Your task to perform on an android device: change notification settings in the gmail app Image 0: 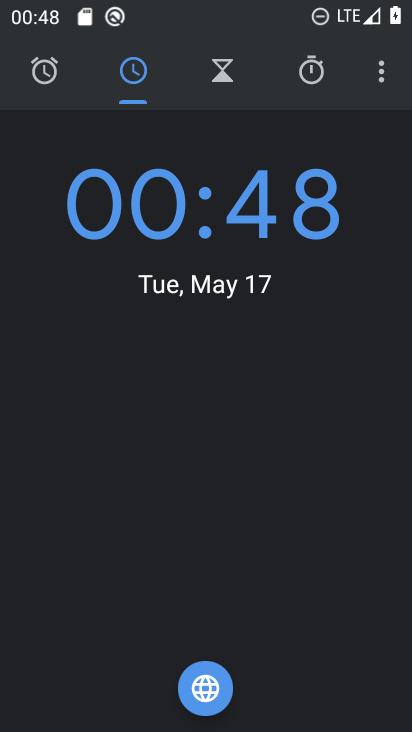
Step 0: press home button
Your task to perform on an android device: change notification settings in the gmail app Image 1: 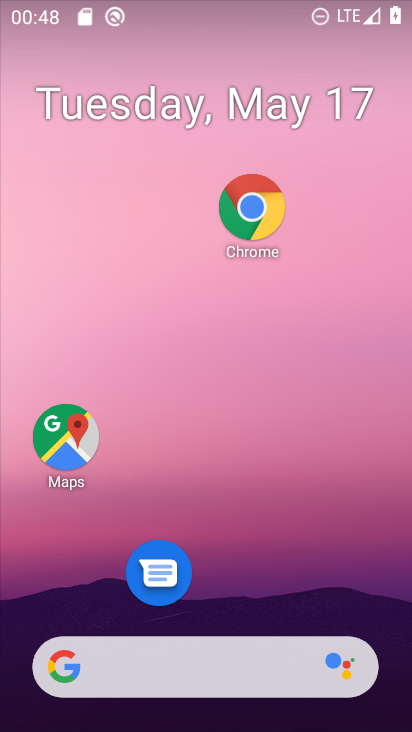
Step 1: drag from (292, 581) to (262, 24)
Your task to perform on an android device: change notification settings in the gmail app Image 2: 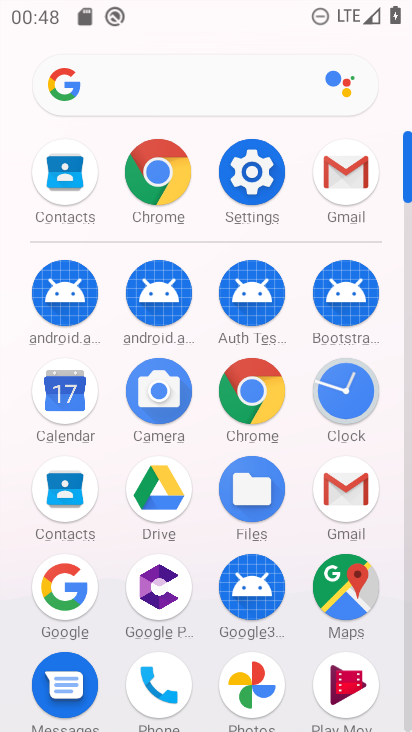
Step 2: click (356, 501)
Your task to perform on an android device: change notification settings in the gmail app Image 3: 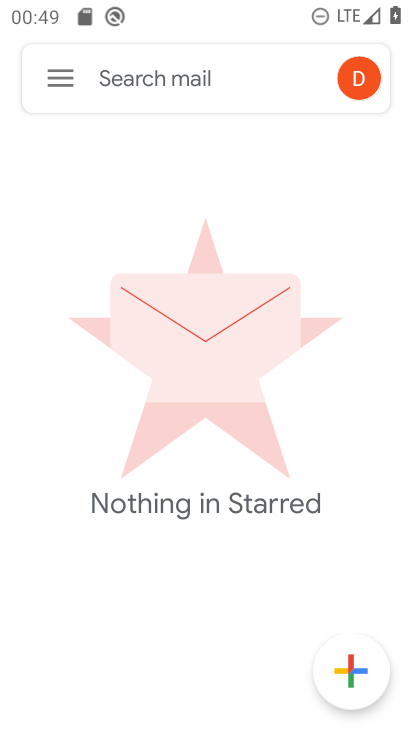
Step 3: click (372, 97)
Your task to perform on an android device: change notification settings in the gmail app Image 4: 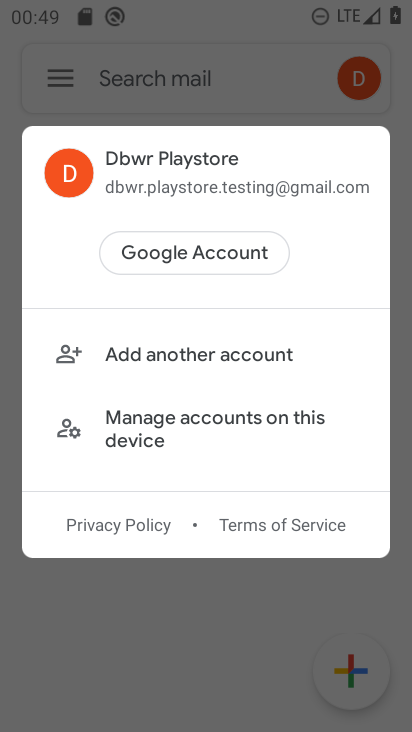
Step 4: click (339, 614)
Your task to perform on an android device: change notification settings in the gmail app Image 5: 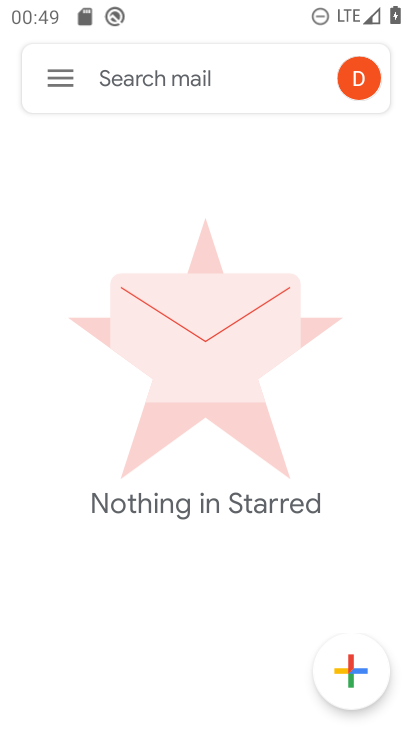
Step 5: click (62, 68)
Your task to perform on an android device: change notification settings in the gmail app Image 6: 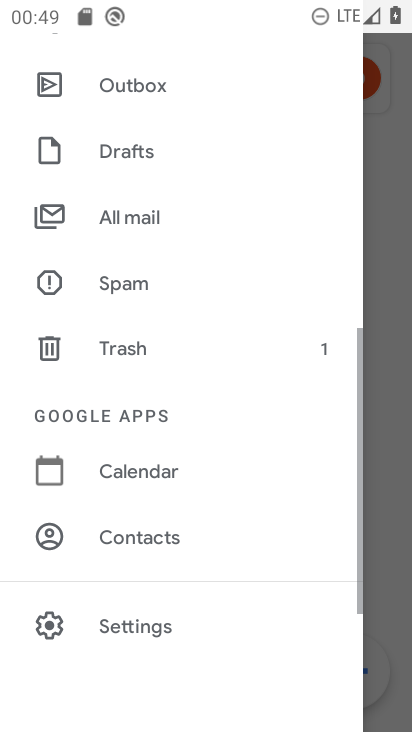
Step 6: click (149, 614)
Your task to perform on an android device: change notification settings in the gmail app Image 7: 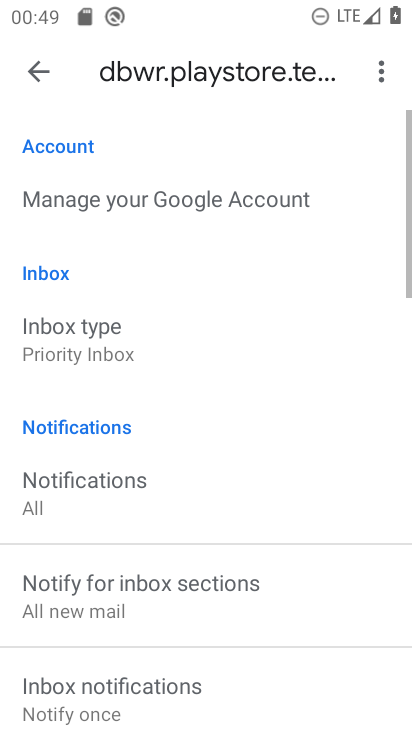
Step 7: drag from (149, 618) to (151, 195)
Your task to perform on an android device: change notification settings in the gmail app Image 8: 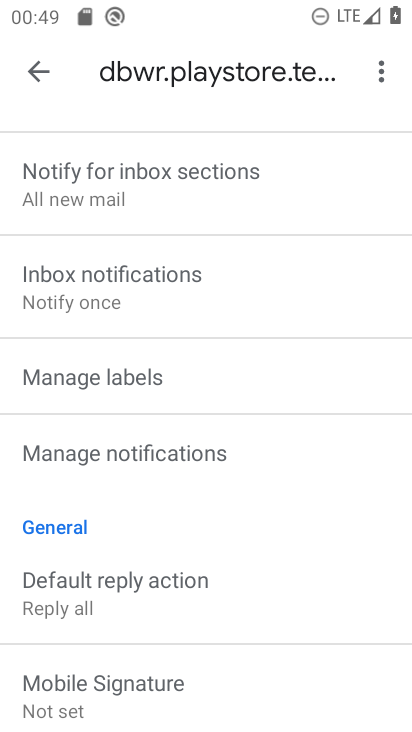
Step 8: click (175, 456)
Your task to perform on an android device: change notification settings in the gmail app Image 9: 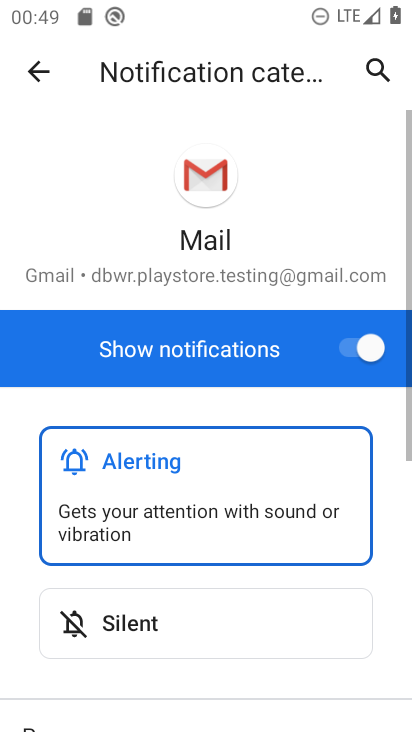
Step 9: task complete